Your task to perform on an android device: Open a new Chrome private tab Image 0: 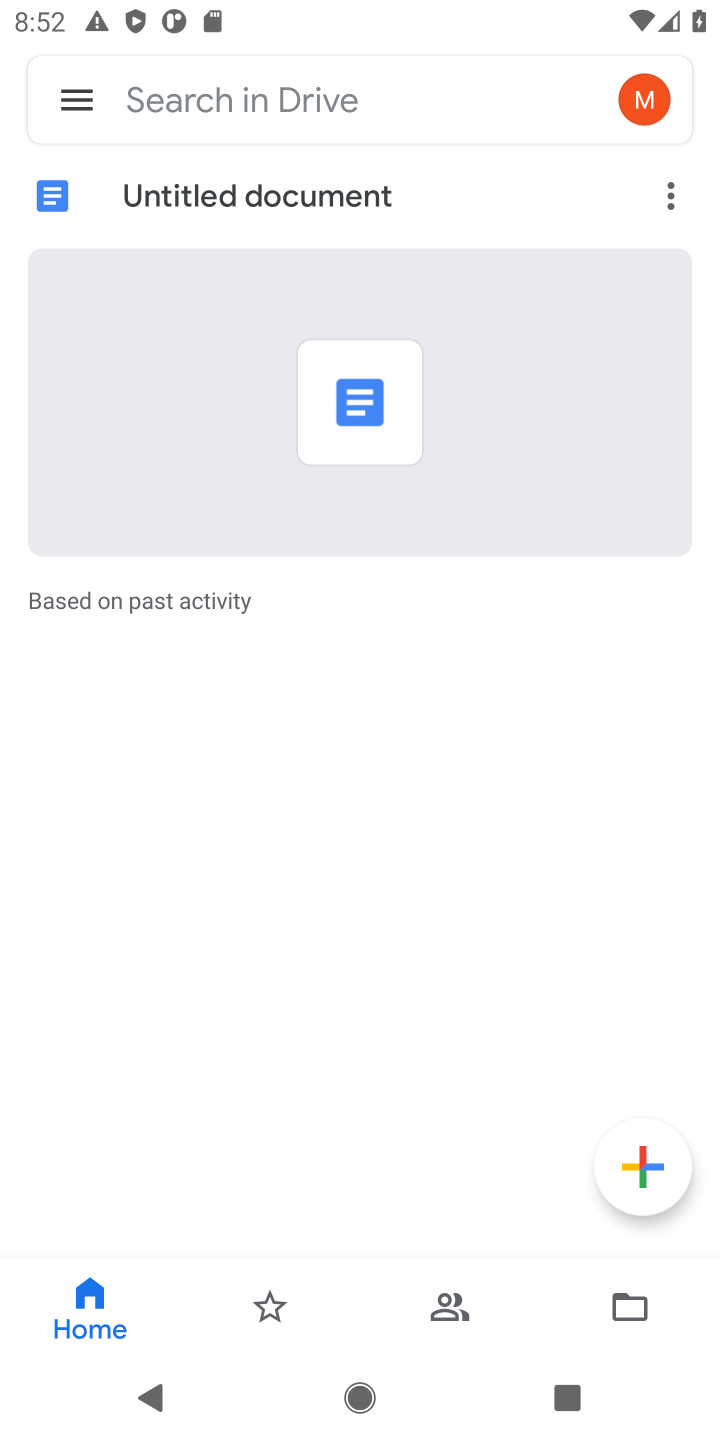
Step 0: press home button
Your task to perform on an android device: Open a new Chrome private tab Image 1: 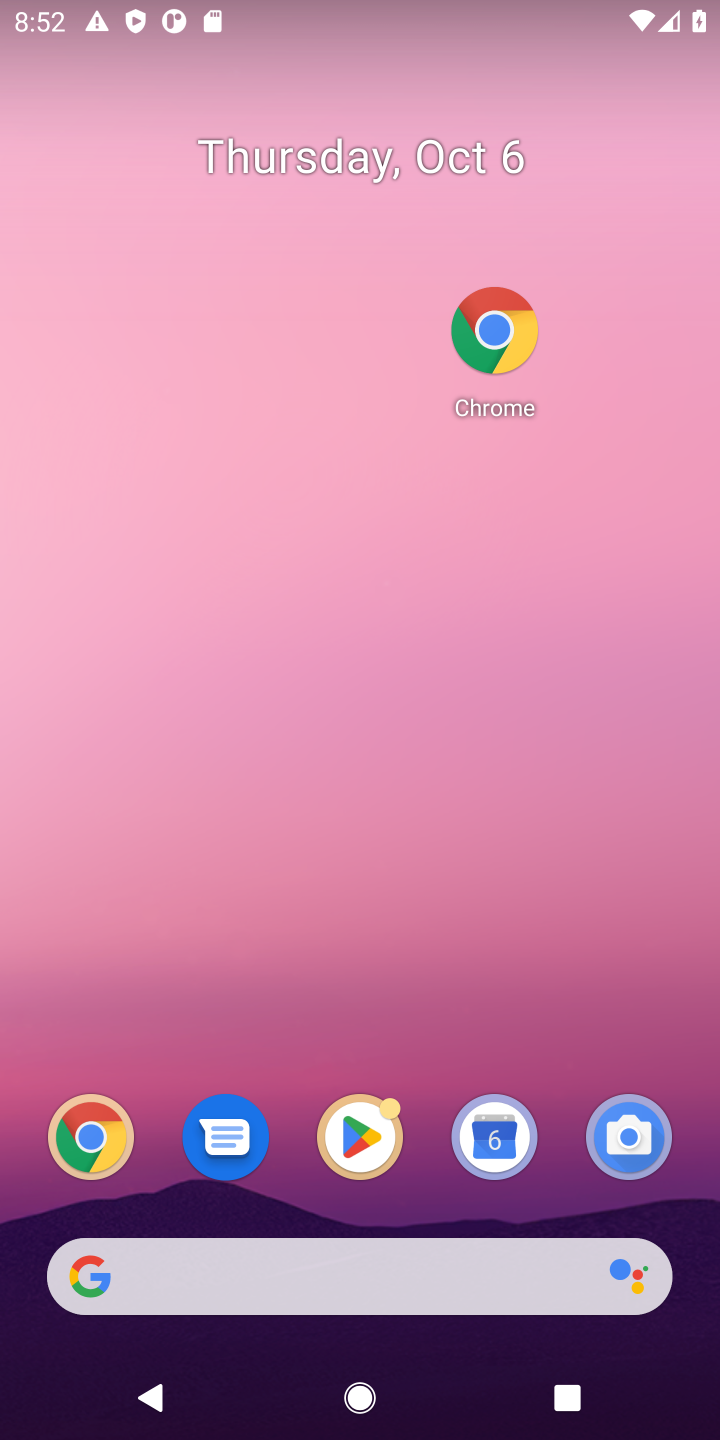
Step 1: click (87, 1138)
Your task to perform on an android device: Open a new Chrome private tab Image 2: 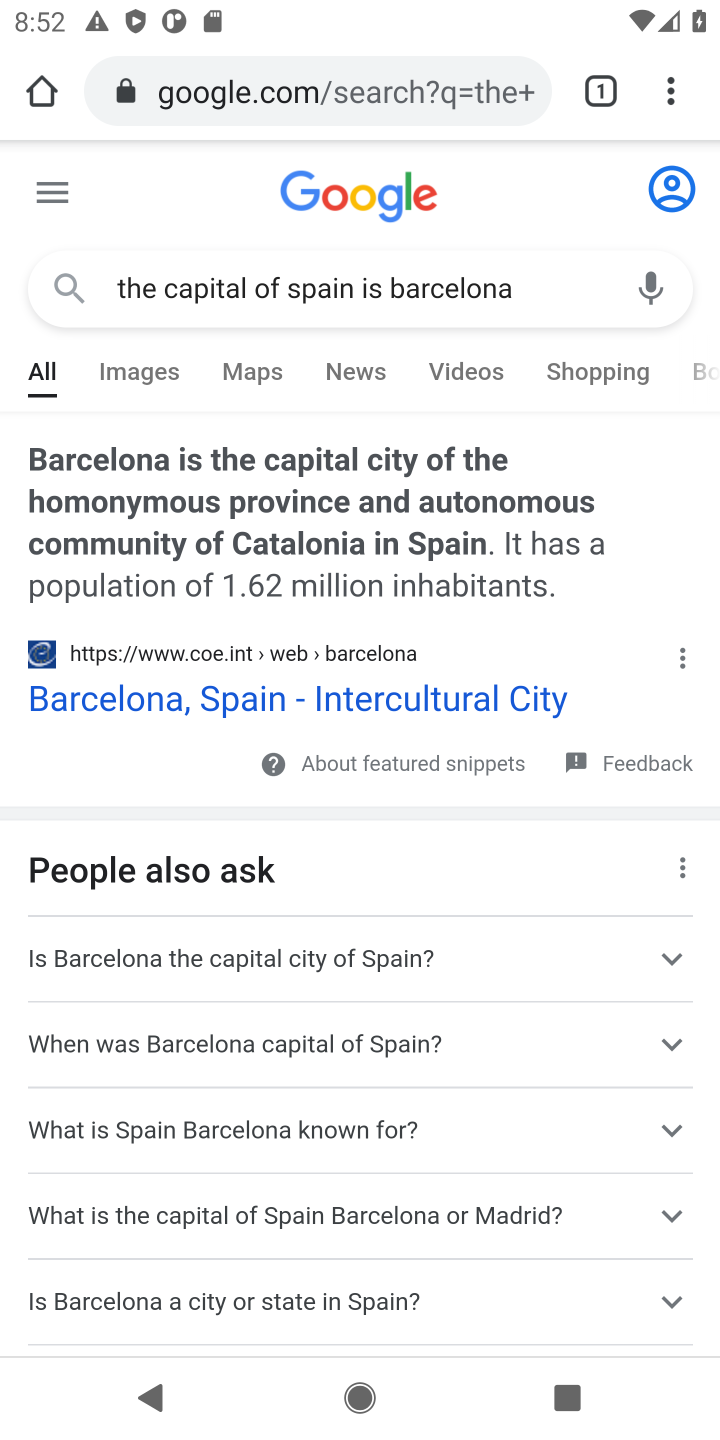
Step 2: click (677, 89)
Your task to perform on an android device: Open a new Chrome private tab Image 3: 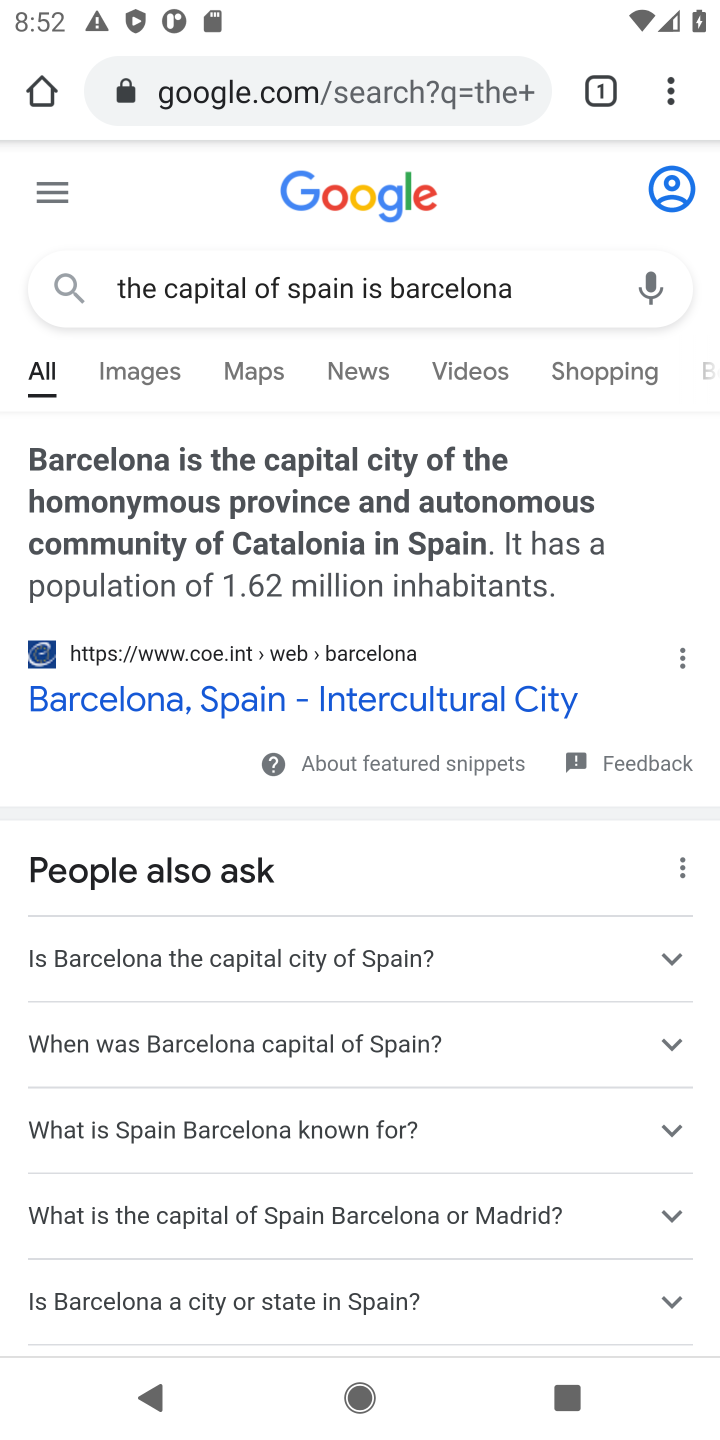
Step 3: click (672, 96)
Your task to perform on an android device: Open a new Chrome private tab Image 4: 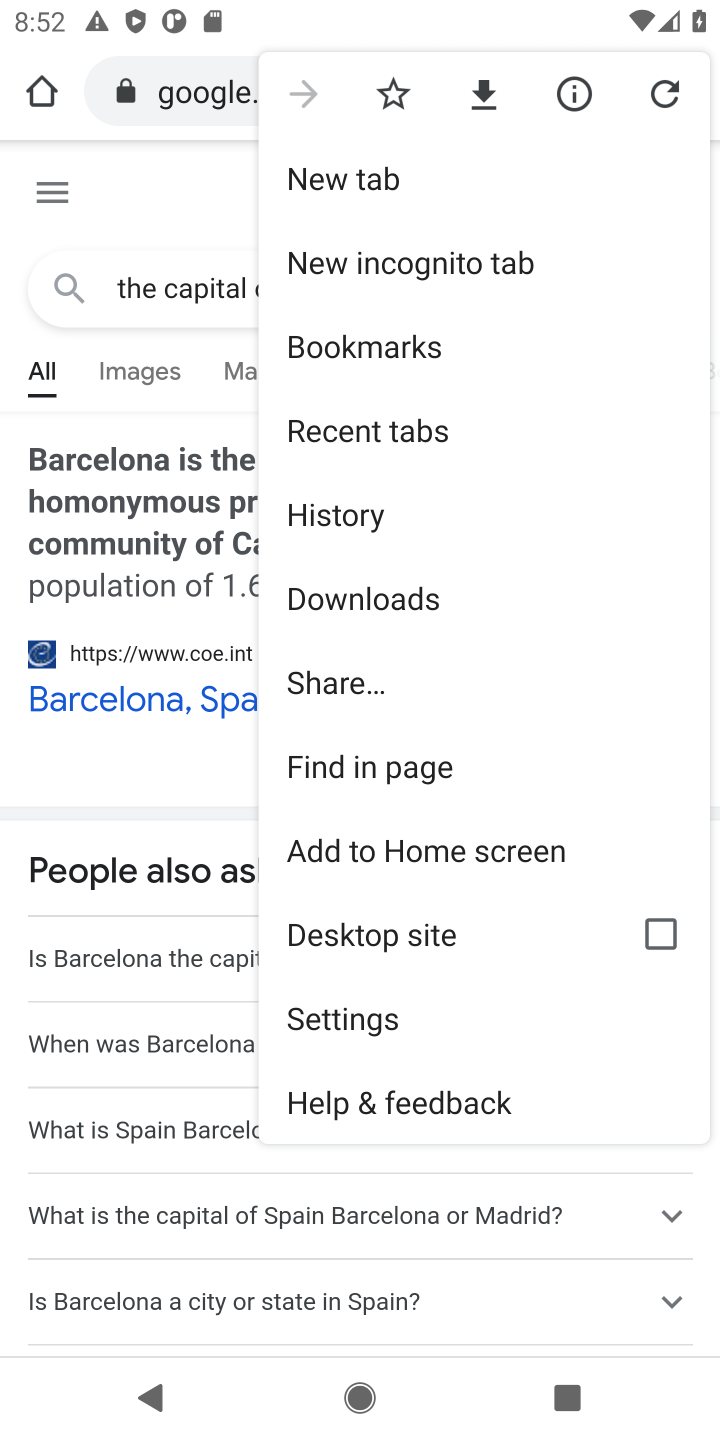
Step 4: click (371, 169)
Your task to perform on an android device: Open a new Chrome private tab Image 5: 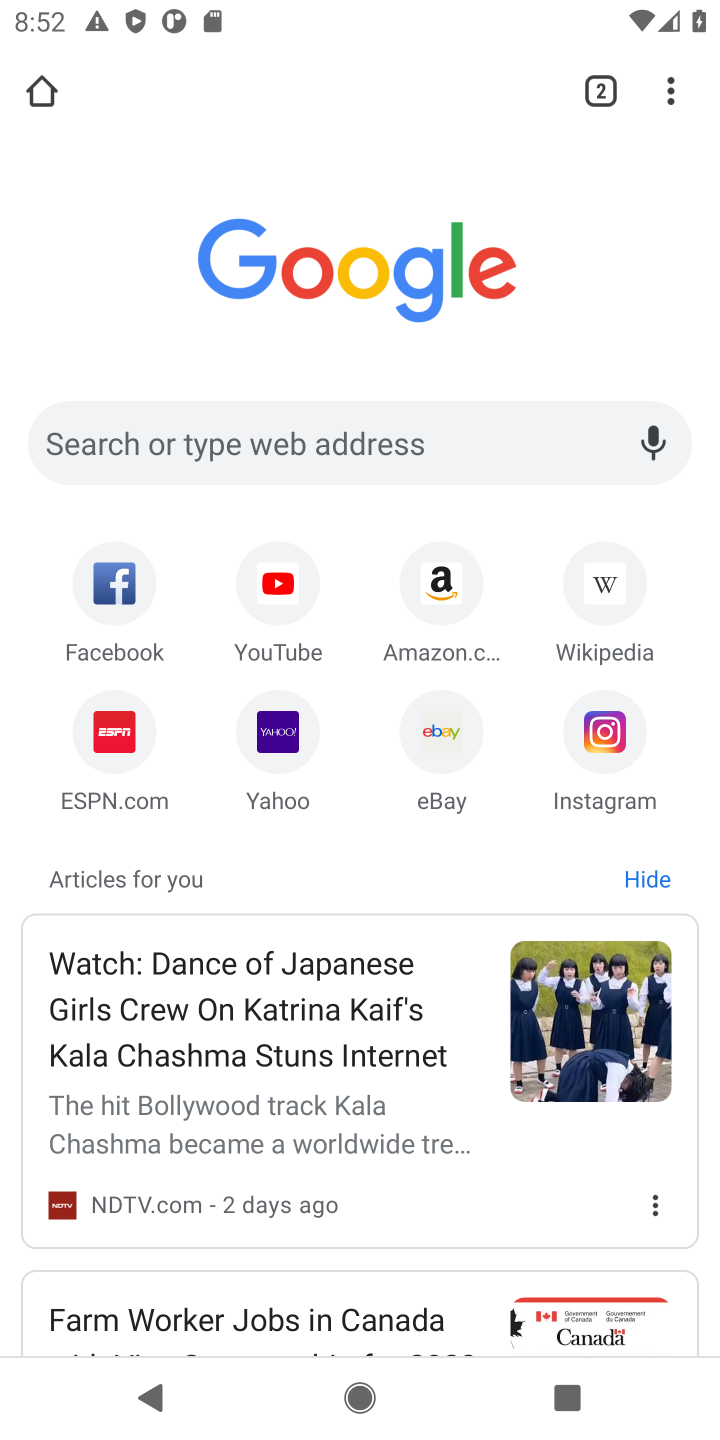
Step 5: task complete